Your task to perform on an android device: manage bookmarks in the chrome app Image 0: 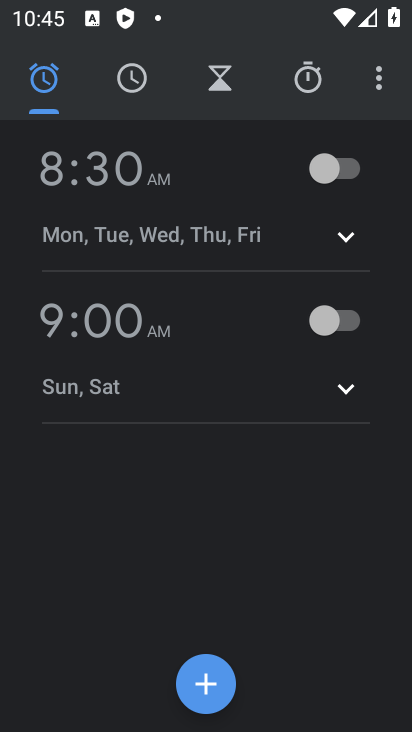
Step 0: press home button
Your task to perform on an android device: manage bookmarks in the chrome app Image 1: 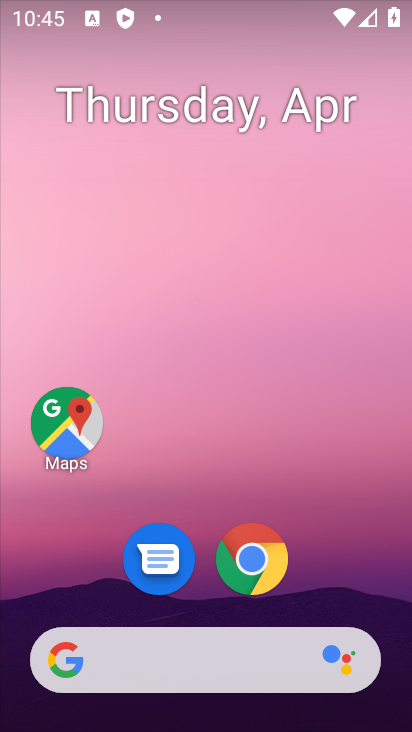
Step 1: click (262, 581)
Your task to perform on an android device: manage bookmarks in the chrome app Image 2: 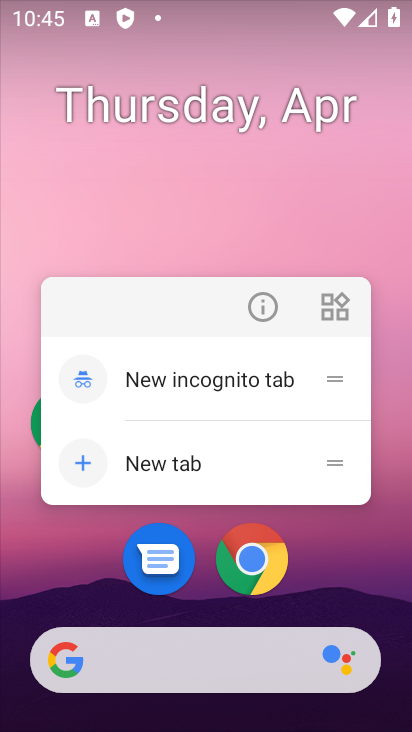
Step 2: click (262, 581)
Your task to perform on an android device: manage bookmarks in the chrome app Image 3: 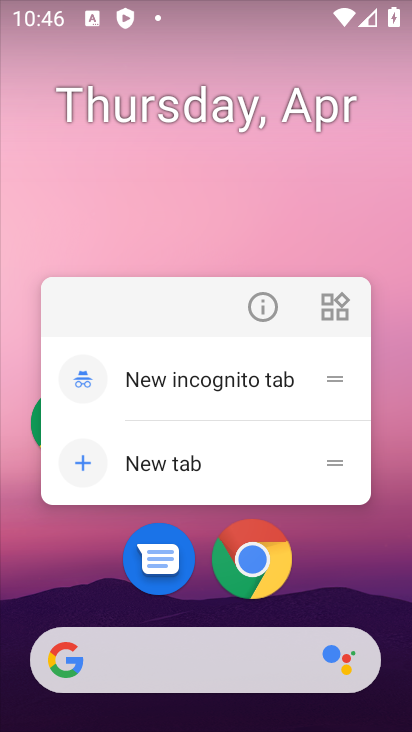
Step 3: click (262, 581)
Your task to perform on an android device: manage bookmarks in the chrome app Image 4: 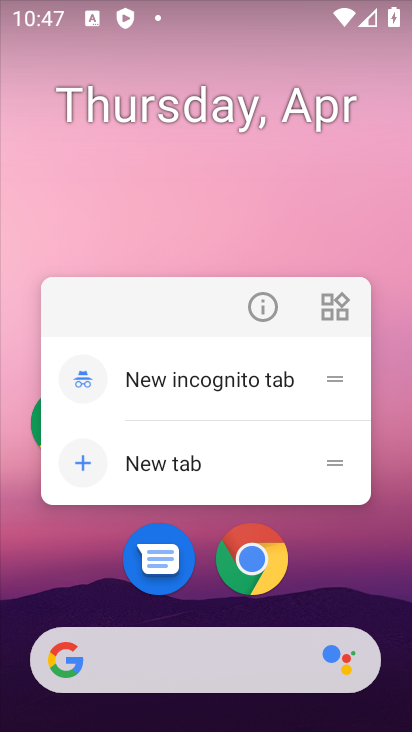
Step 4: click (257, 573)
Your task to perform on an android device: manage bookmarks in the chrome app Image 5: 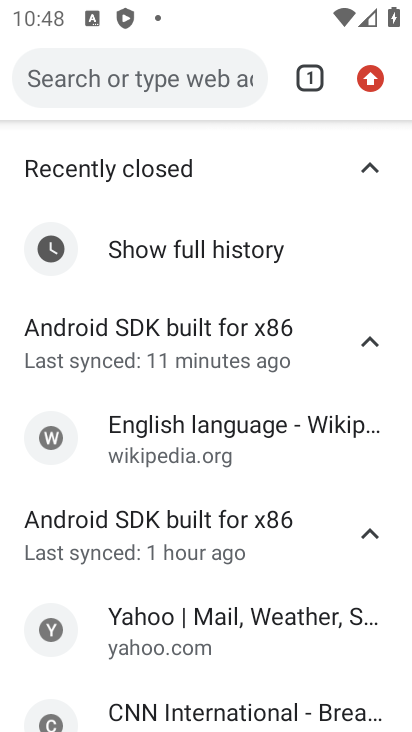
Step 5: click (369, 65)
Your task to perform on an android device: manage bookmarks in the chrome app Image 6: 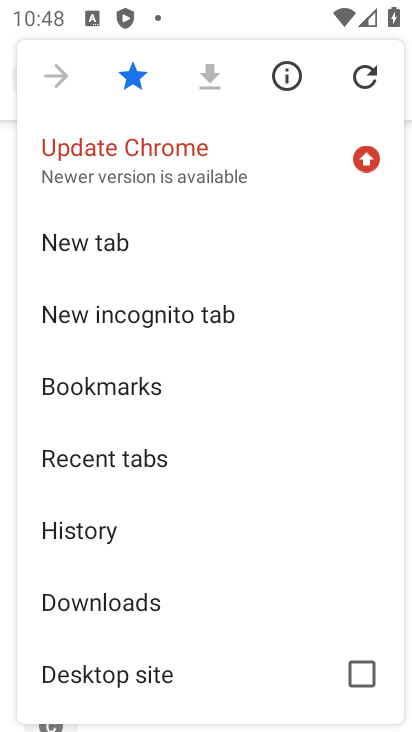
Step 6: click (123, 388)
Your task to perform on an android device: manage bookmarks in the chrome app Image 7: 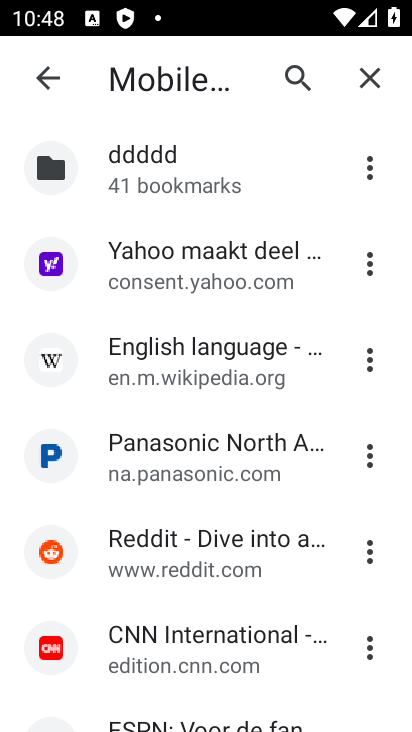
Step 7: click (375, 451)
Your task to perform on an android device: manage bookmarks in the chrome app Image 8: 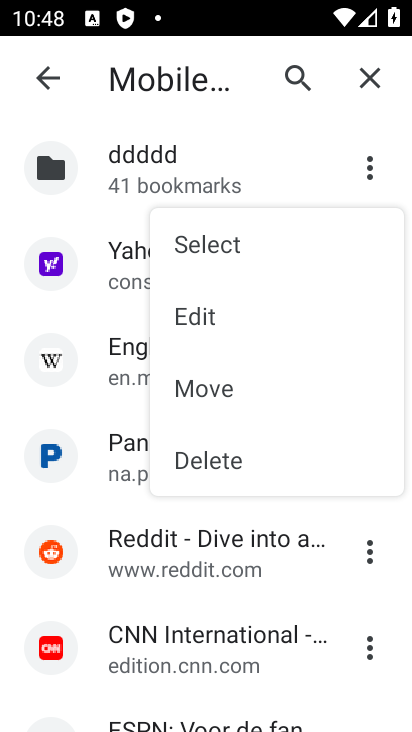
Step 8: click (260, 463)
Your task to perform on an android device: manage bookmarks in the chrome app Image 9: 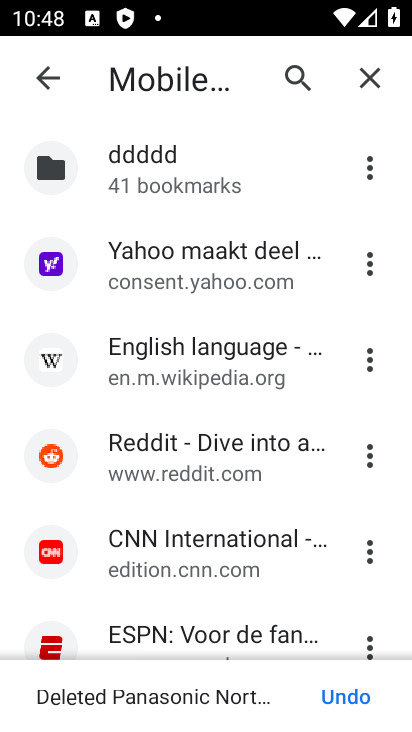
Step 9: task complete